Your task to perform on an android device: Search for "jbl charge 4" on newegg.com, select the first entry, and add it to the cart. Image 0: 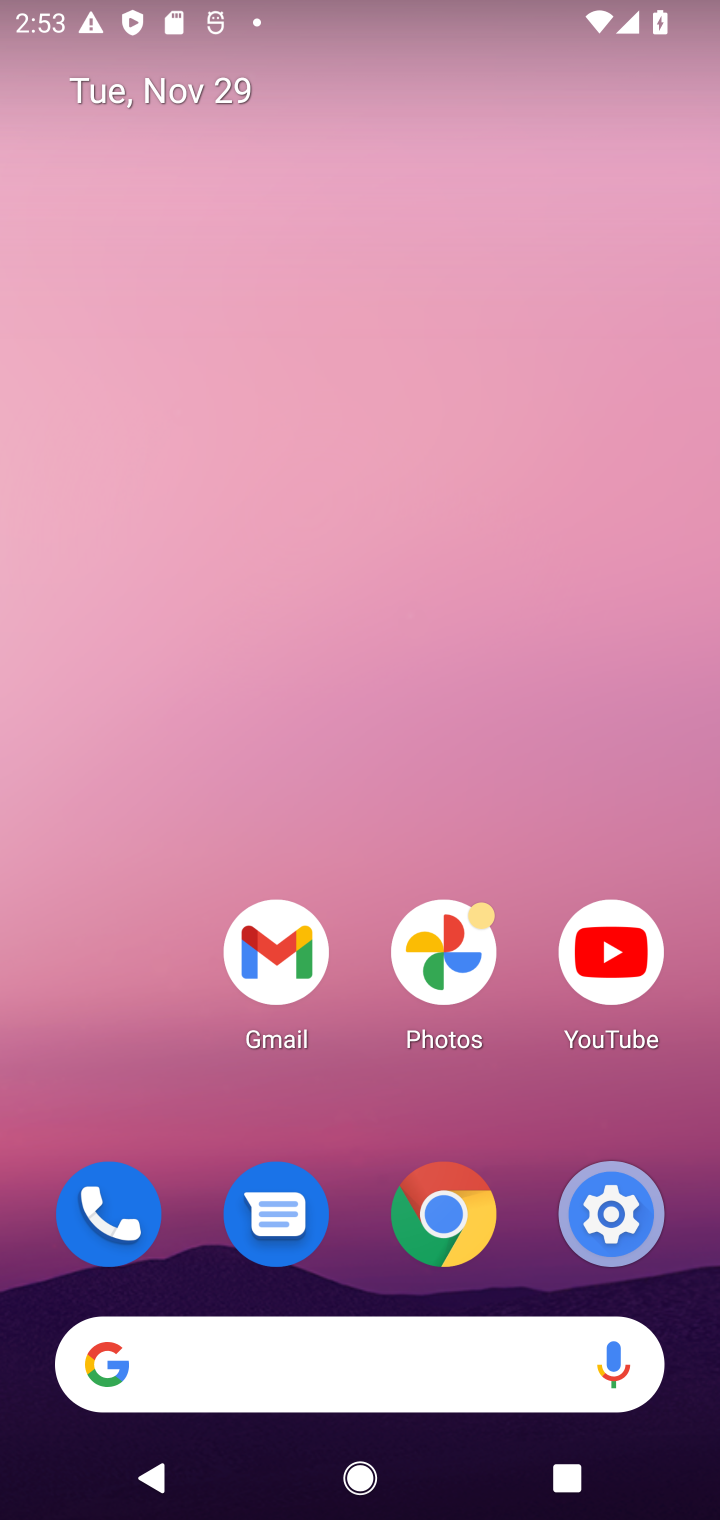
Step 0: click (303, 1372)
Your task to perform on an android device: Search for "jbl charge 4" on newegg.com, select the first entry, and add it to the cart. Image 1: 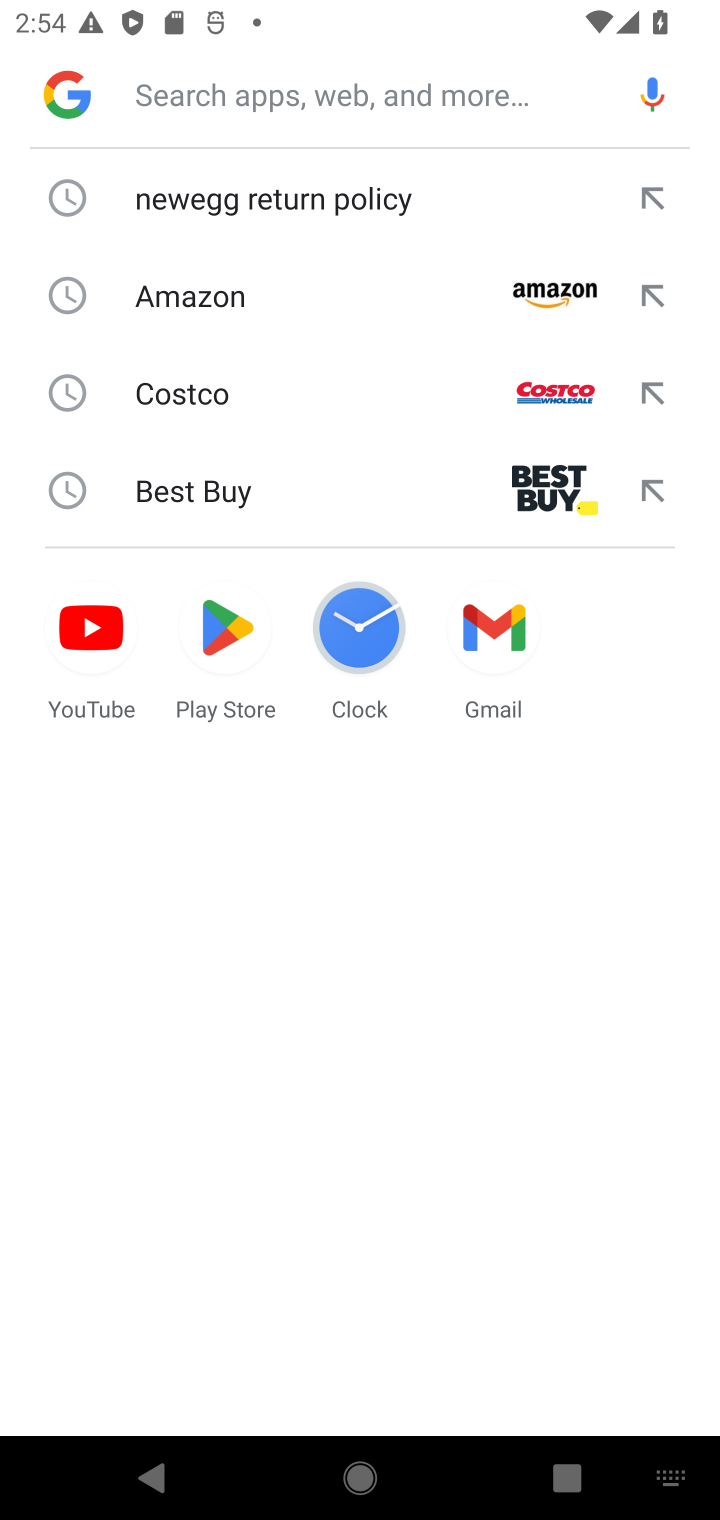
Step 1: type "newegg.com"
Your task to perform on an android device: Search for "jbl charge 4" on newegg.com, select the first entry, and add it to the cart. Image 2: 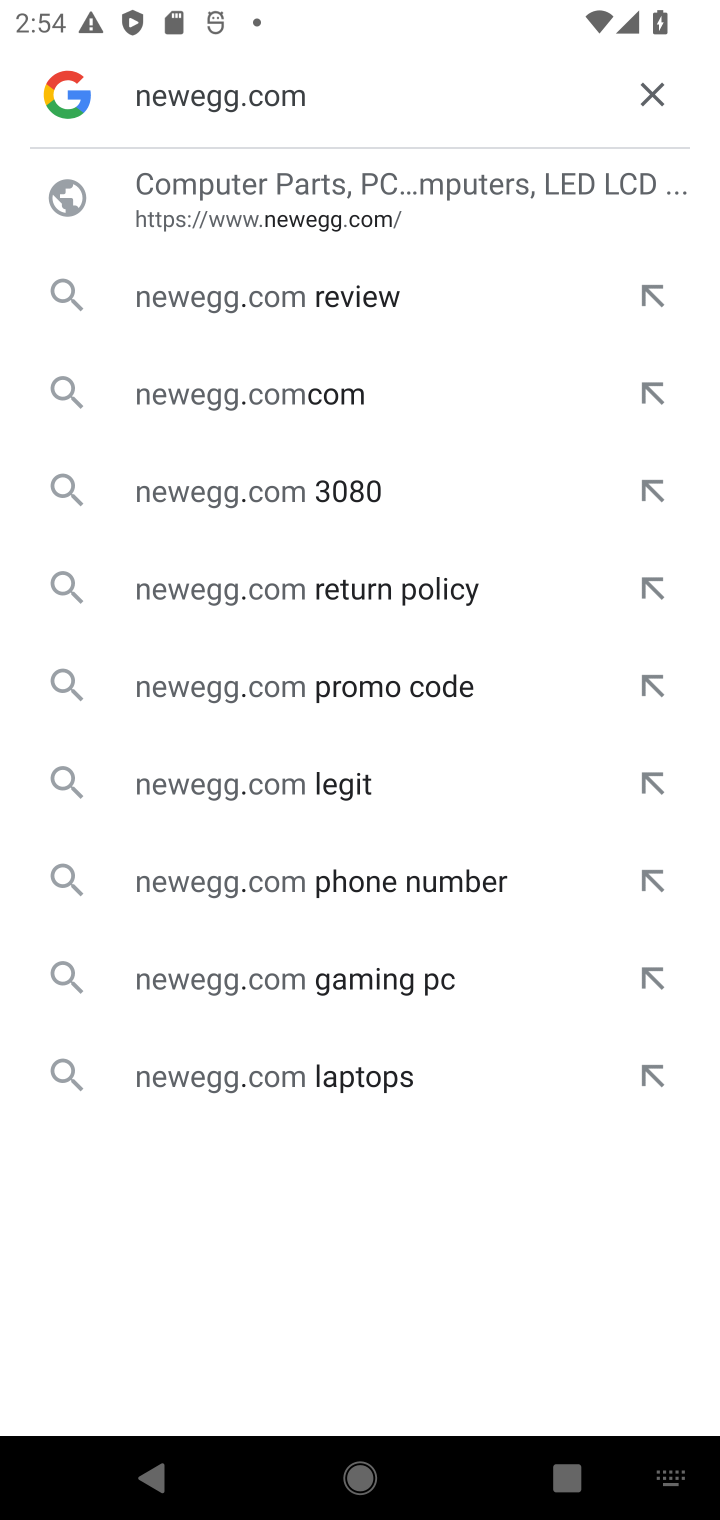
Step 2: click (296, 186)
Your task to perform on an android device: Search for "jbl charge 4" on newegg.com, select the first entry, and add it to the cart. Image 3: 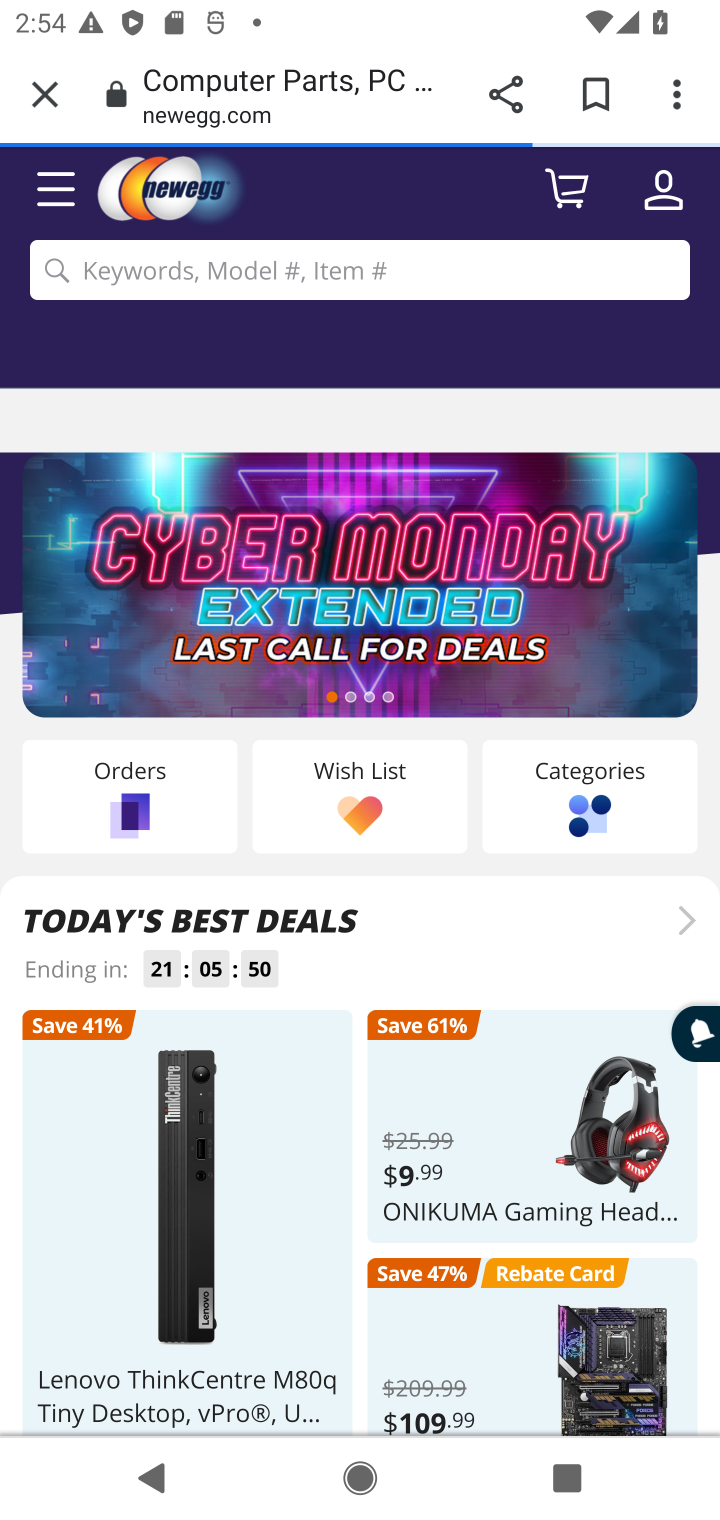
Step 3: click (304, 275)
Your task to perform on an android device: Search for "jbl charge 4" on newegg.com, select the first entry, and add it to the cart. Image 4: 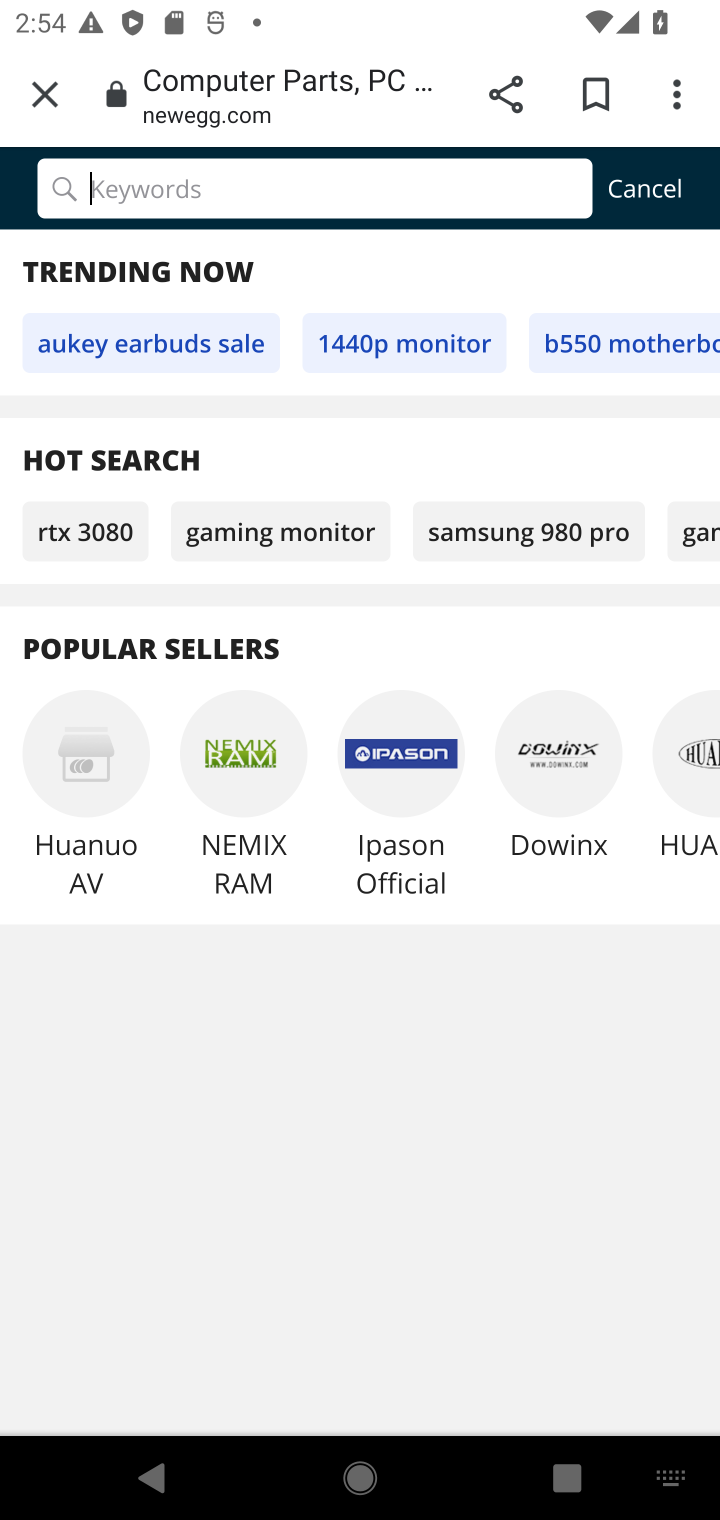
Step 4: type "jbl charge 4"
Your task to perform on an android device: Search for "jbl charge 4" on newegg.com, select the first entry, and add it to the cart. Image 5: 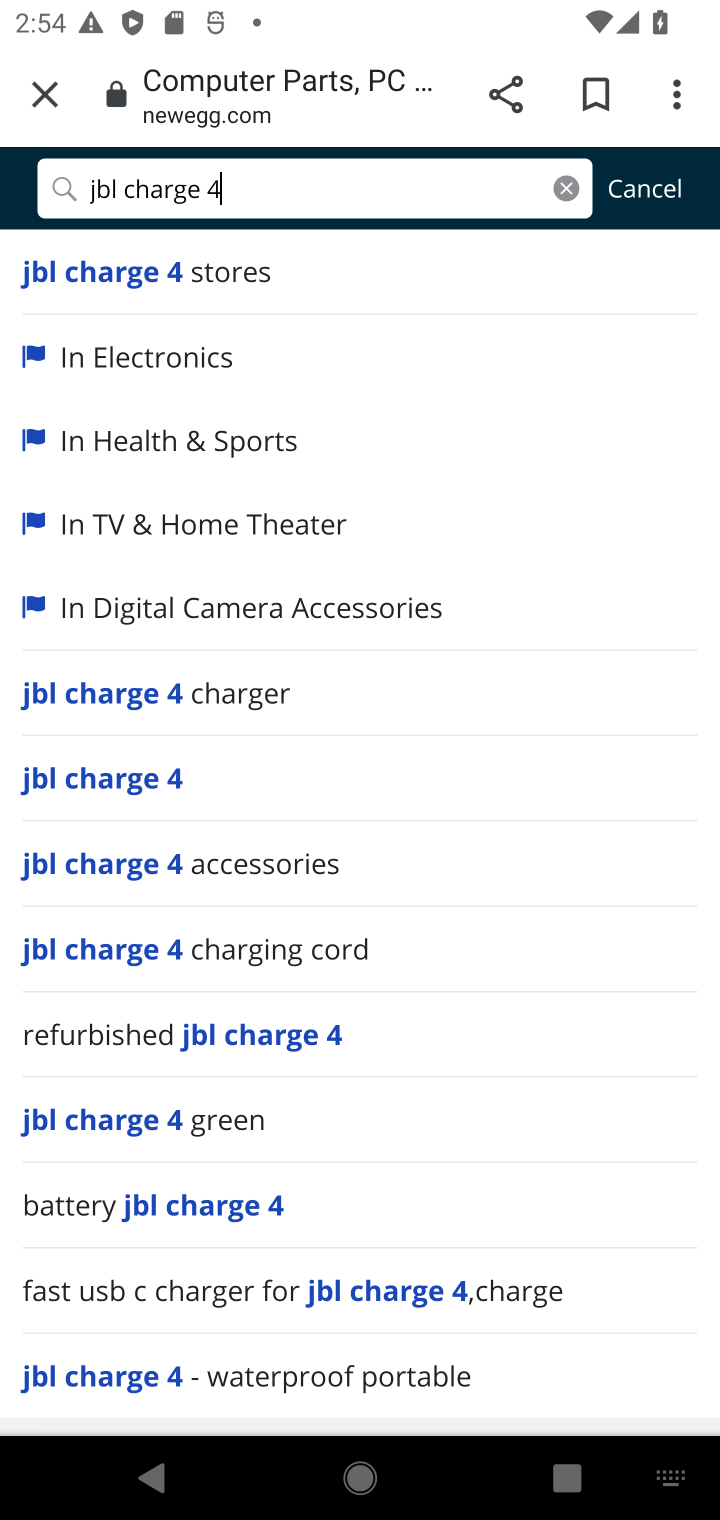
Step 5: click (210, 301)
Your task to perform on an android device: Search for "jbl charge 4" on newegg.com, select the first entry, and add it to the cart. Image 6: 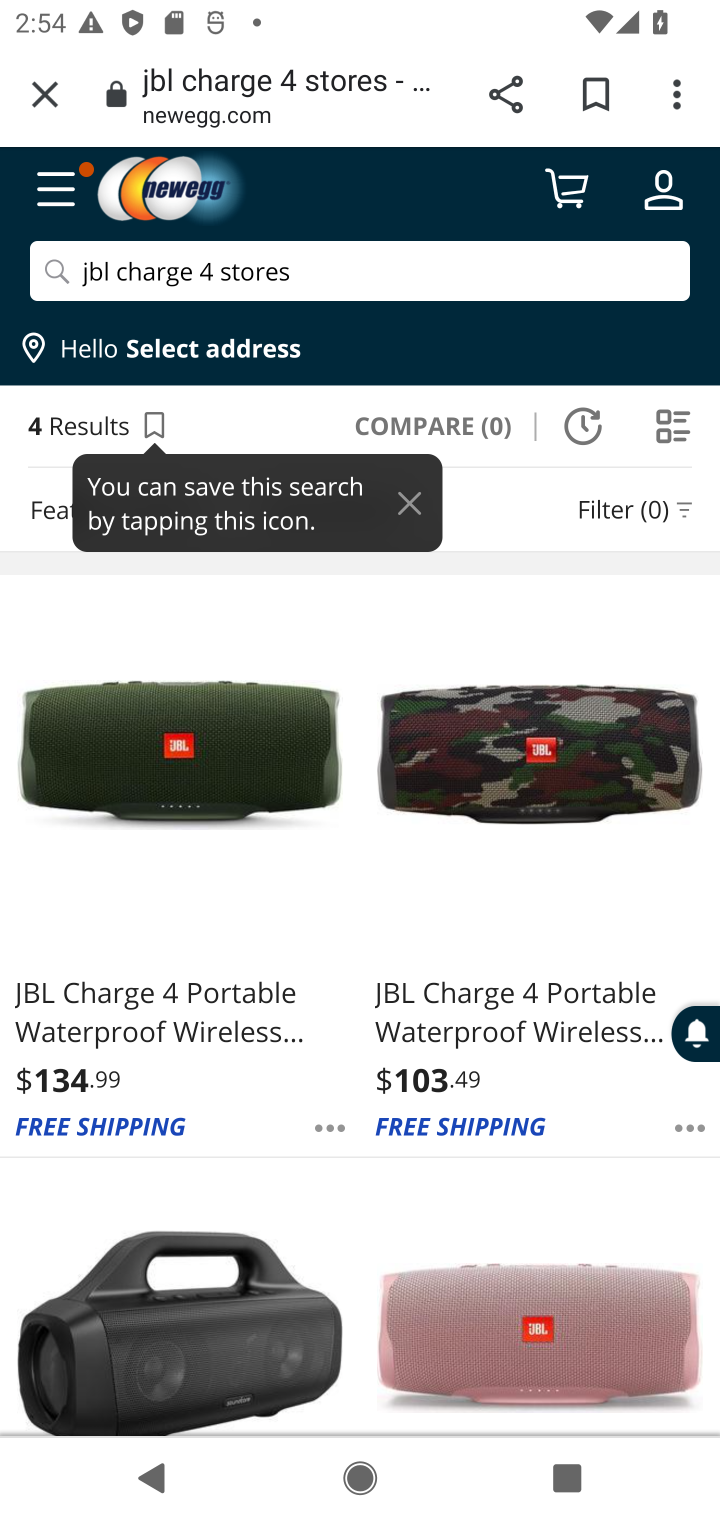
Step 6: click (186, 880)
Your task to perform on an android device: Search for "jbl charge 4" on newegg.com, select the first entry, and add it to the cart. Image 7: 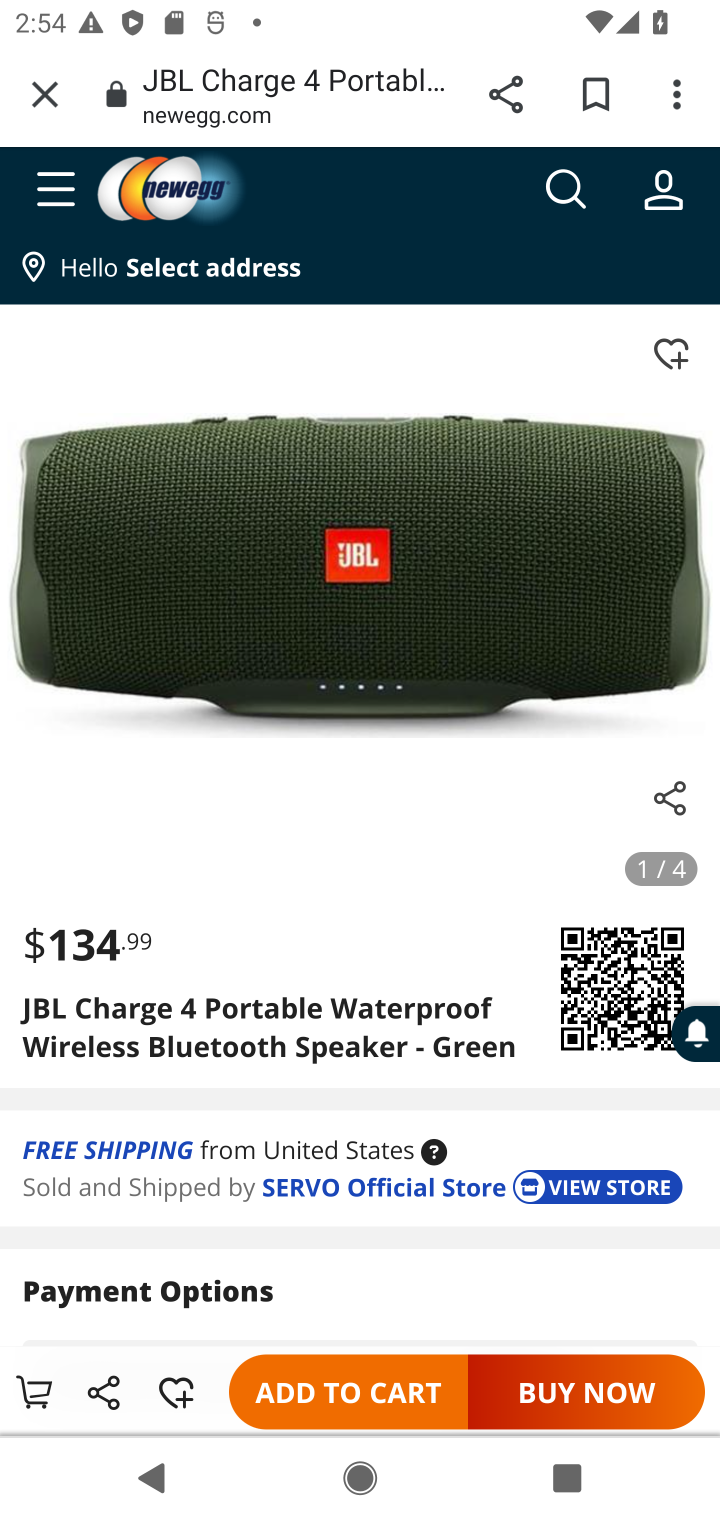
Step 7: click (372, 1410)
Your task to perform on an android device: Search for "jbl charge 4" on newegg.com, select the first entry, and add it to the cart. Image 8: 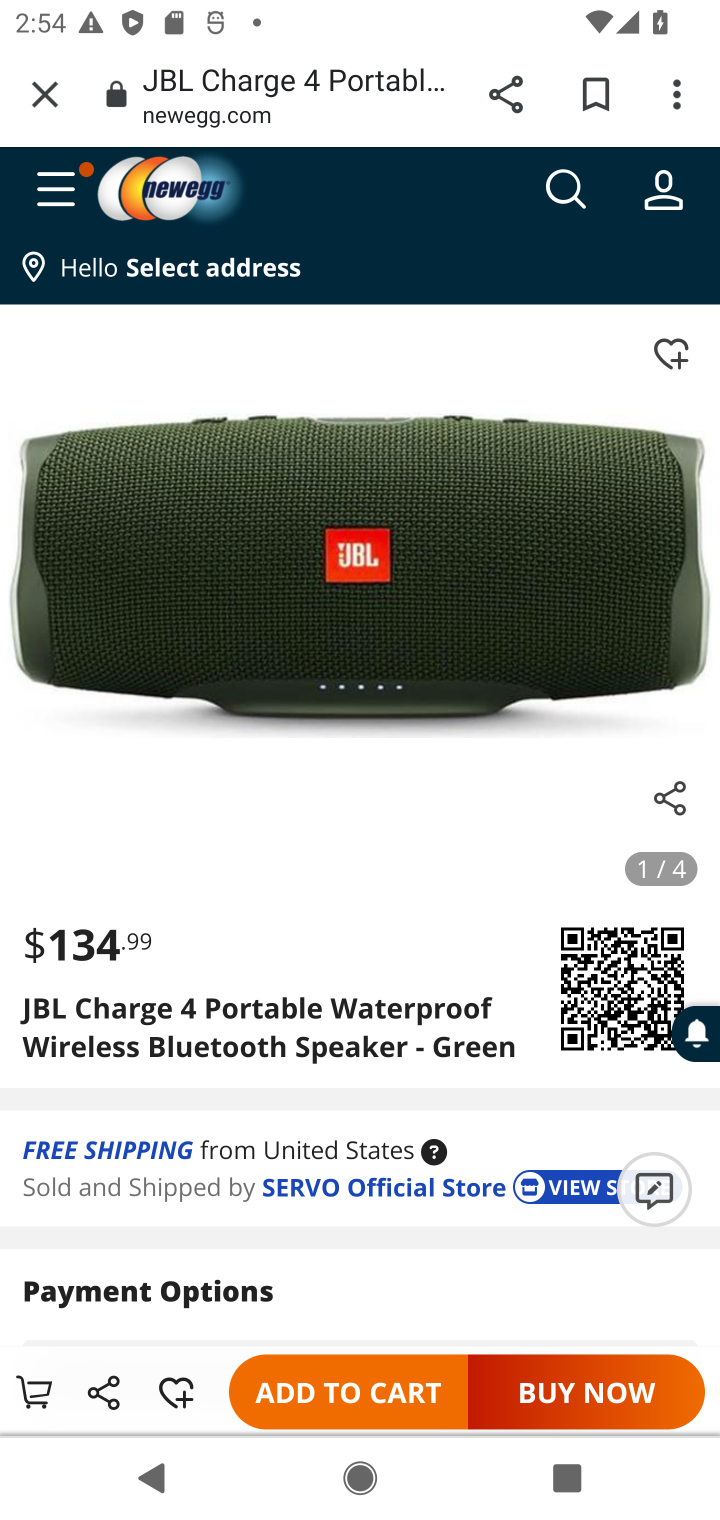
Step 8: task complete